Your task to perform on an android device: toggle improve location accuracy Image 0: 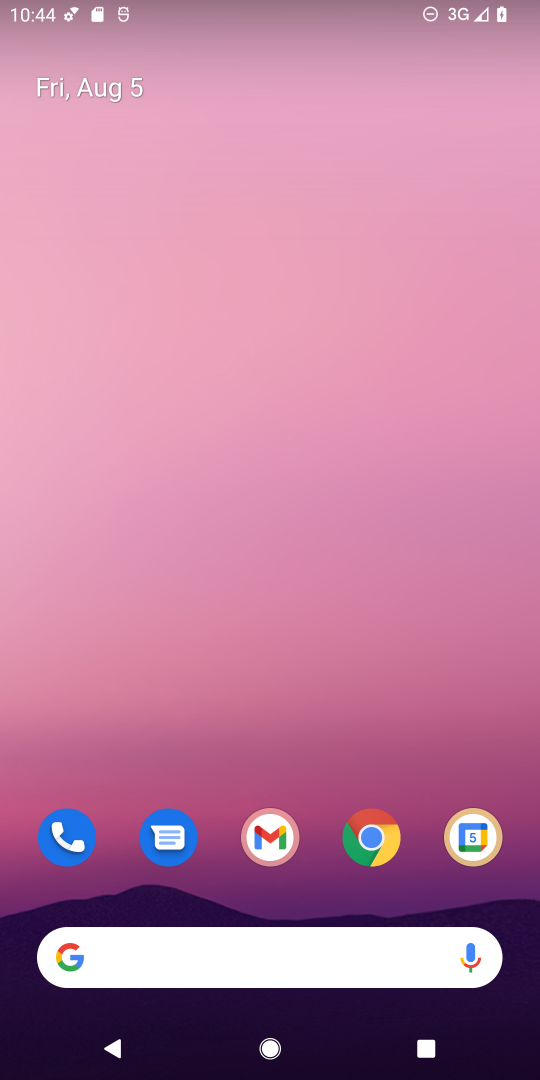
Step 0: drag from (296, 787) to (371, 47)
Your task to perform on an android device: toggle improve location accuracy Image 1: 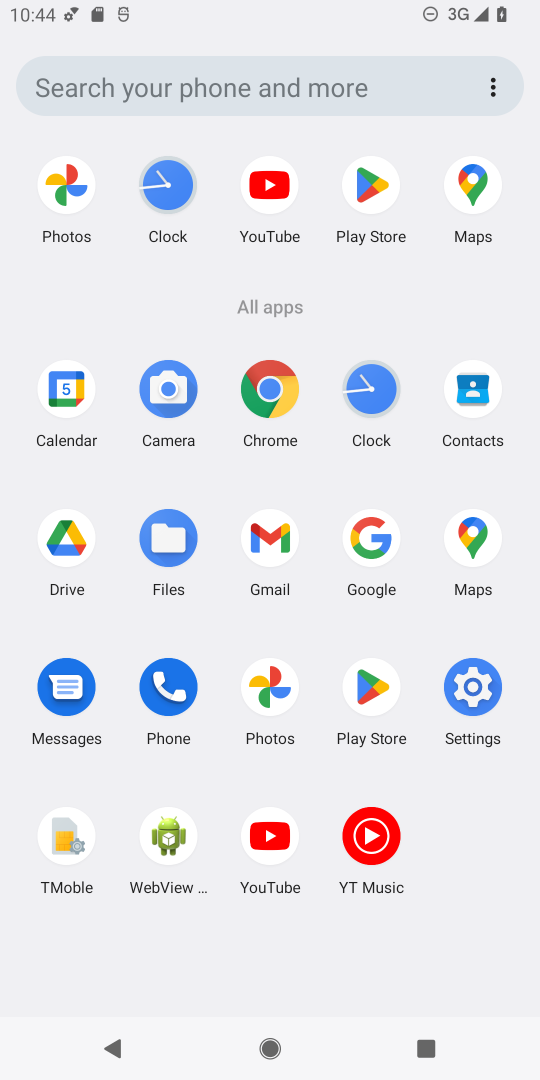
Step 1: click (468, 689)
Your task to perform on an android device: toggle improve location accuracy Image 2: 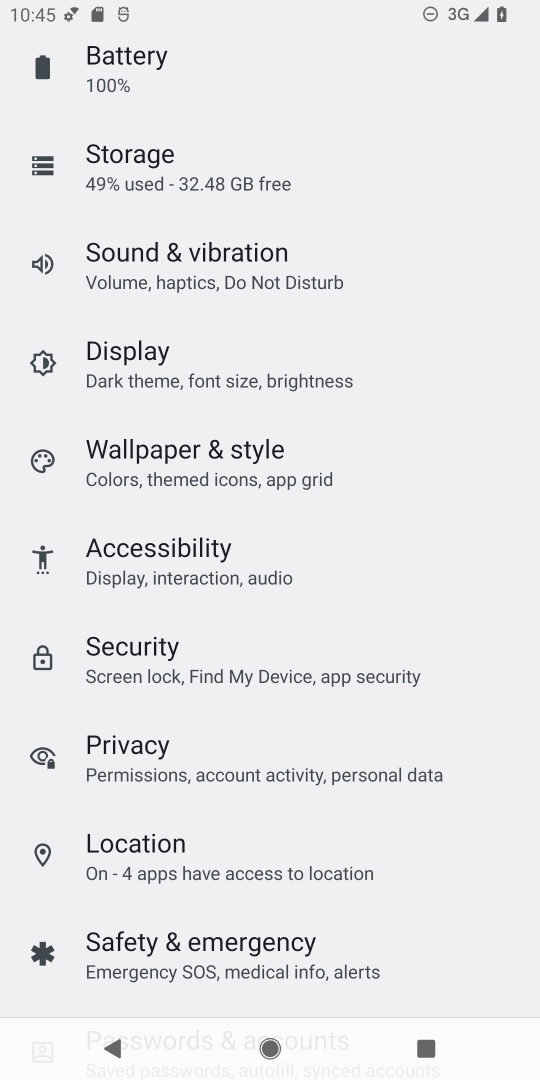
Step 2: click (301, 849)
Your task to perform on an android device: toggle improve location accuracy Image 3: 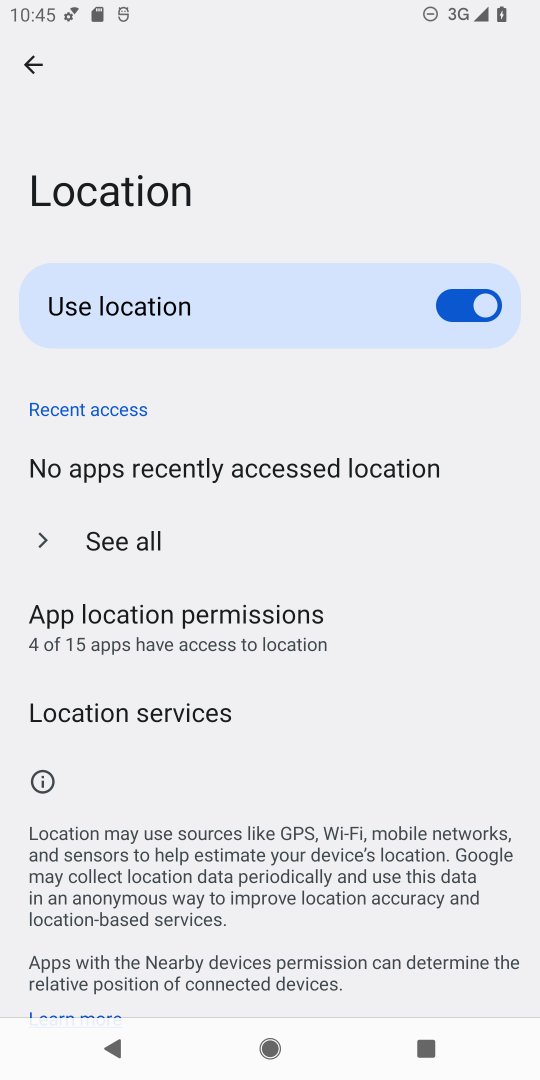
Step 3: click (221, 710)
Your task to perform on an android device: toggle improve location accuracy Image 4: 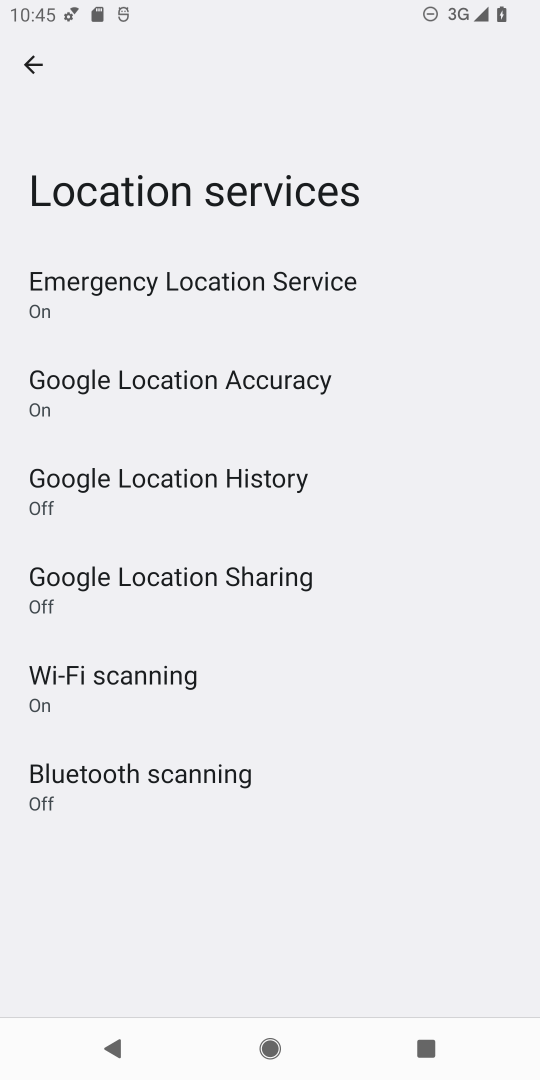
Step 4: click (283, 397)
Your task to perform on an android device: toggle improve location accuracy Image 5: 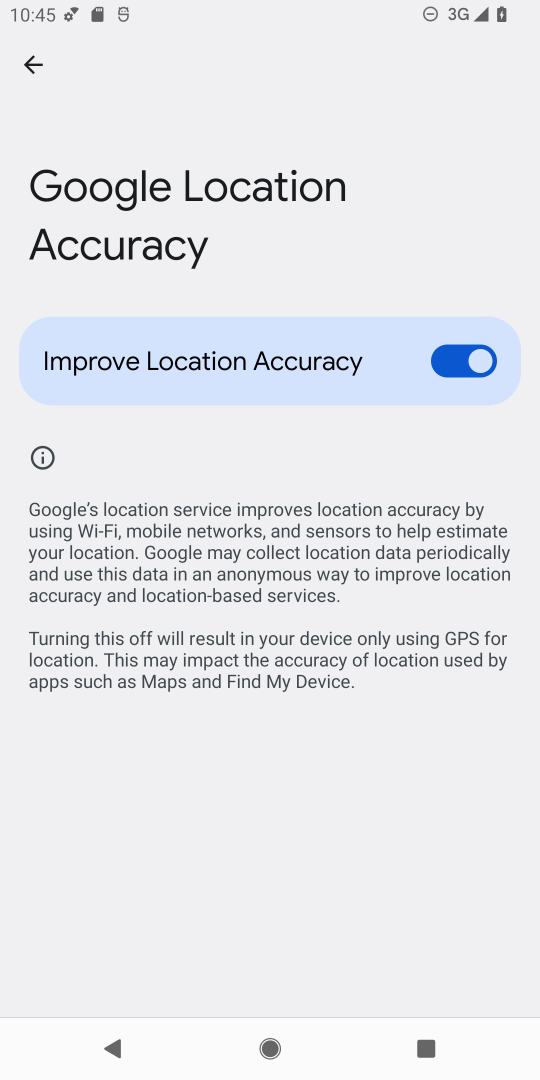
Step 5: click (461, 357)
Your task to perform on an android device: toggle improve location accuracy Image 6: 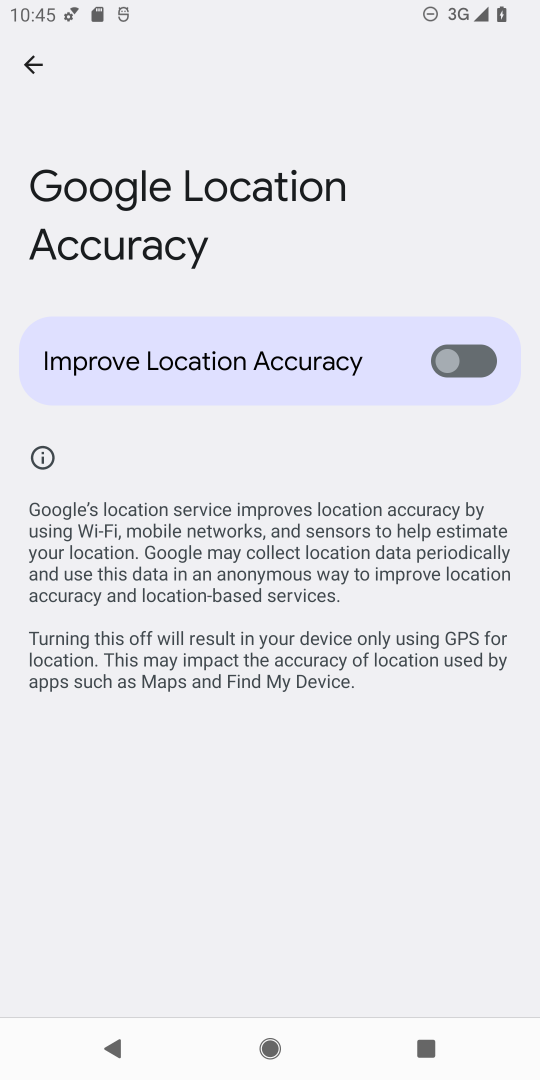
Step 6: task complete